Your task to perform on an android device: add a contact in the contacts app Image 0: 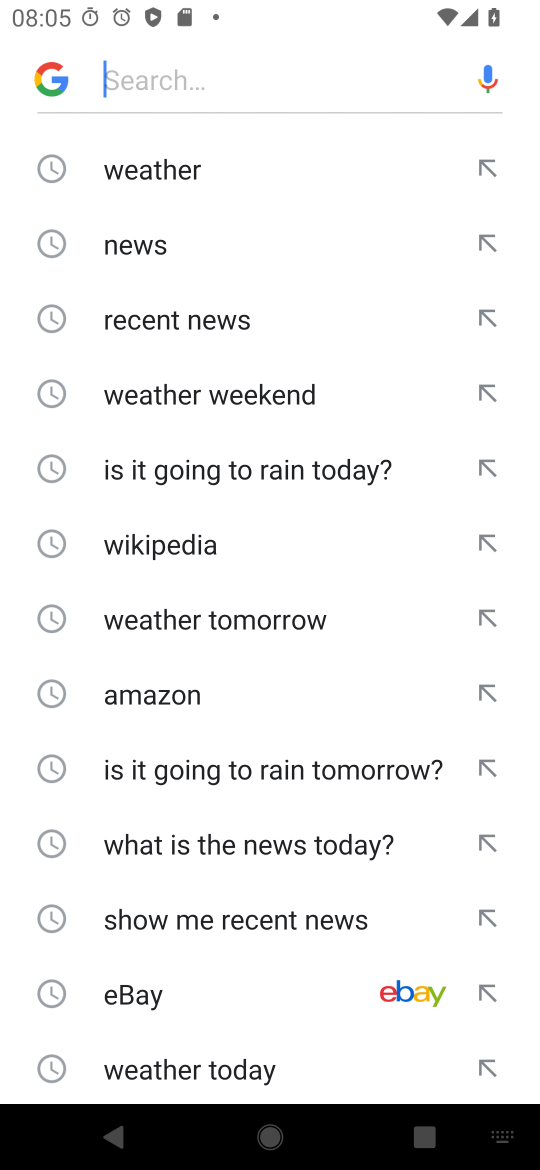
Step 0: press home button
Your task to perform on an android device: add a contact in the contacts app Image 1: 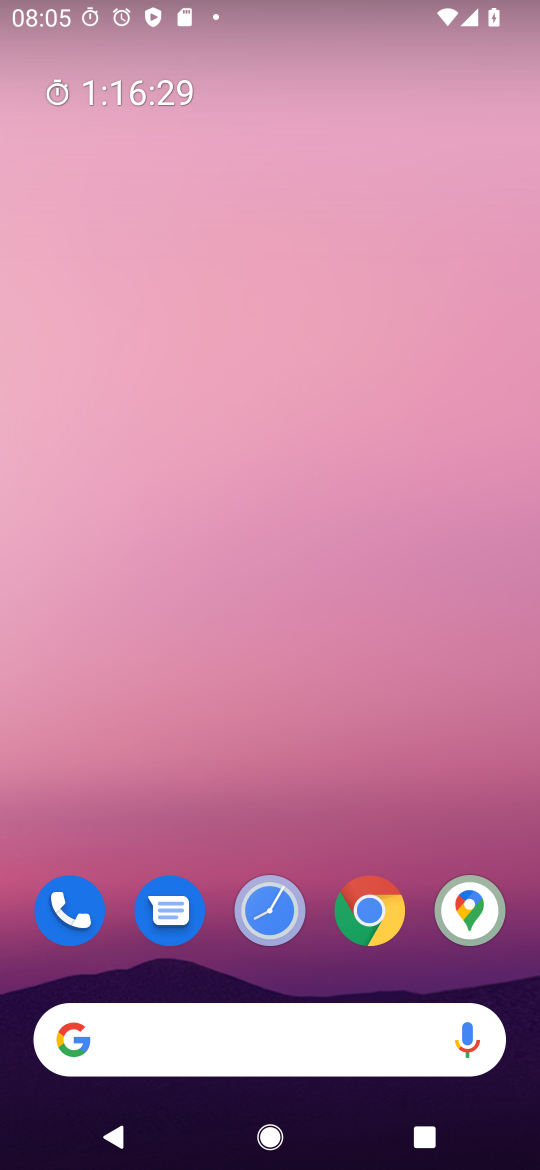
Step 1: drag from (246, 1039) to (230, 305)
Your task to perform on an android device: add a contact in the contacts app Image 2: 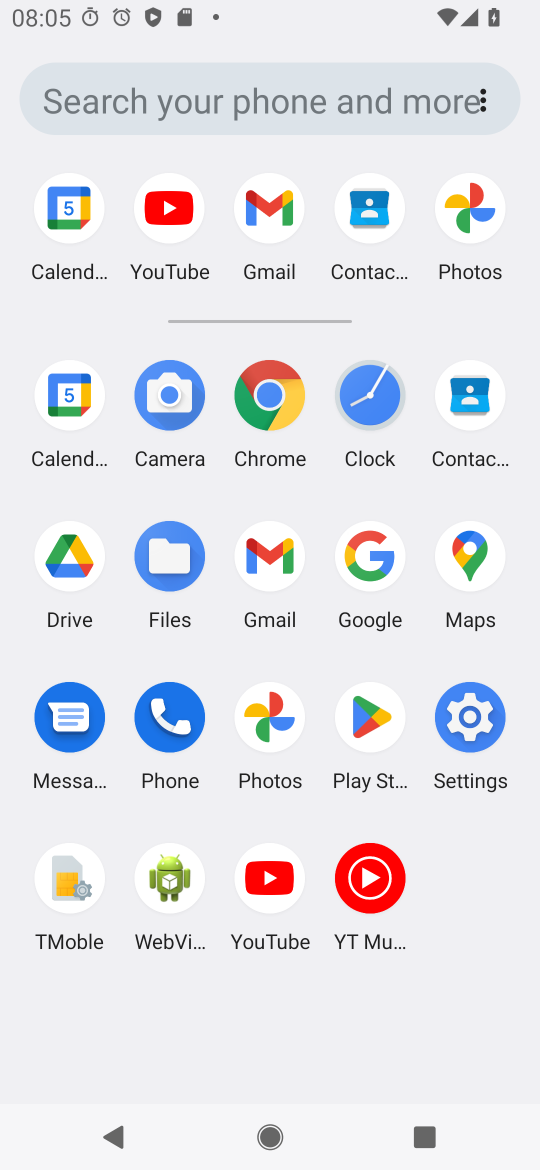
Step 2: click (448, 387)
Your task to perform on an android device: add a contact in the contacts app Image 3: 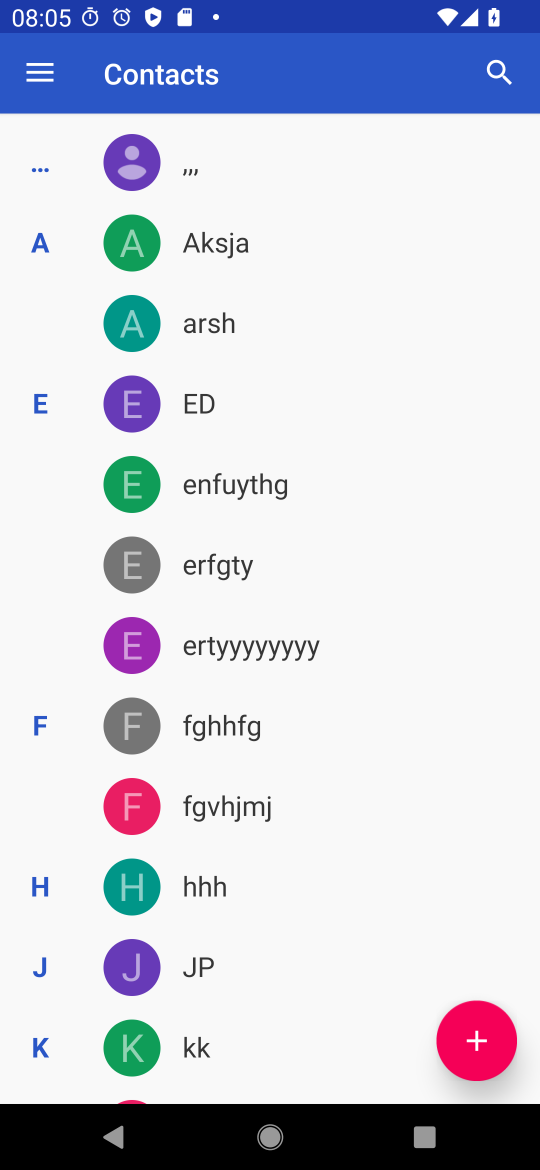
Step 3: click (467, 1029)
Your task to perform on an android device: add a contact in the contacts app Image 4: 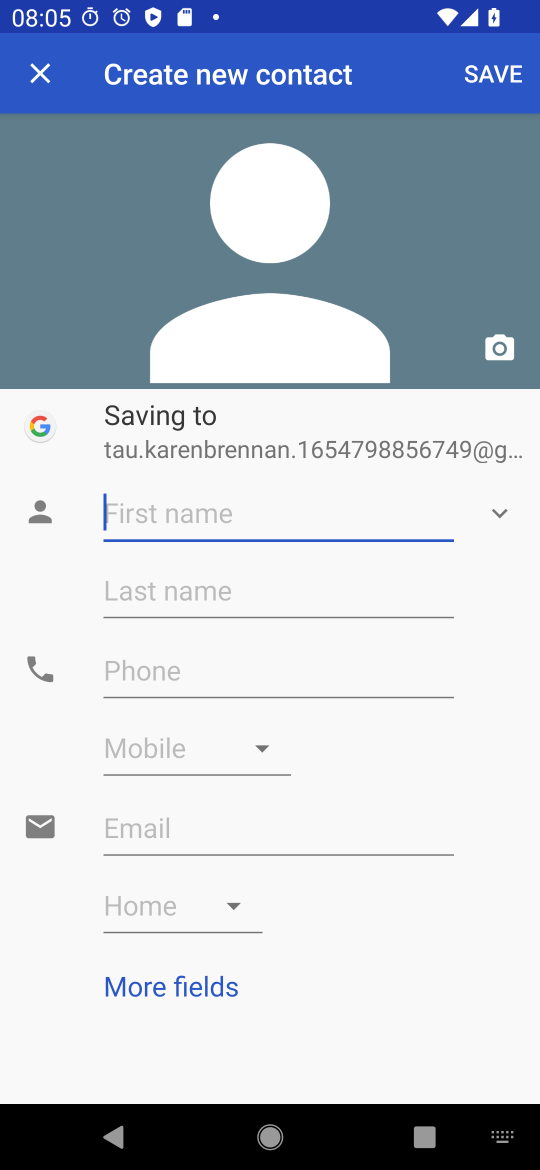
Step 4: type "jjhfhf"
Your task to perform on an android device: add a contact in the contacts app Image 5: 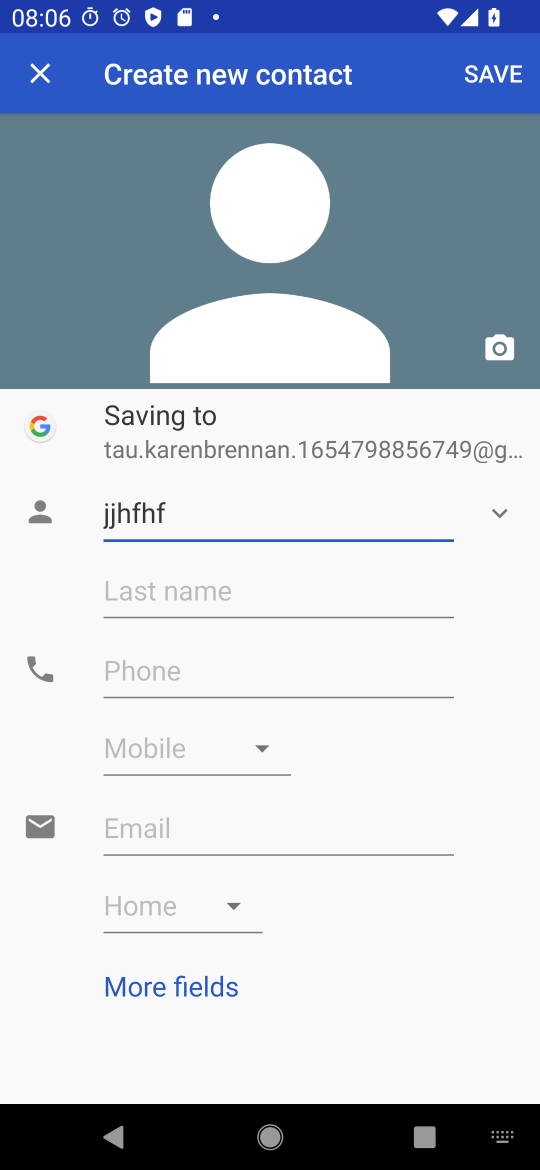
Step 5: click (250, 671)
Your task to perform on an android device: add a contact in the contacts app Image 6: 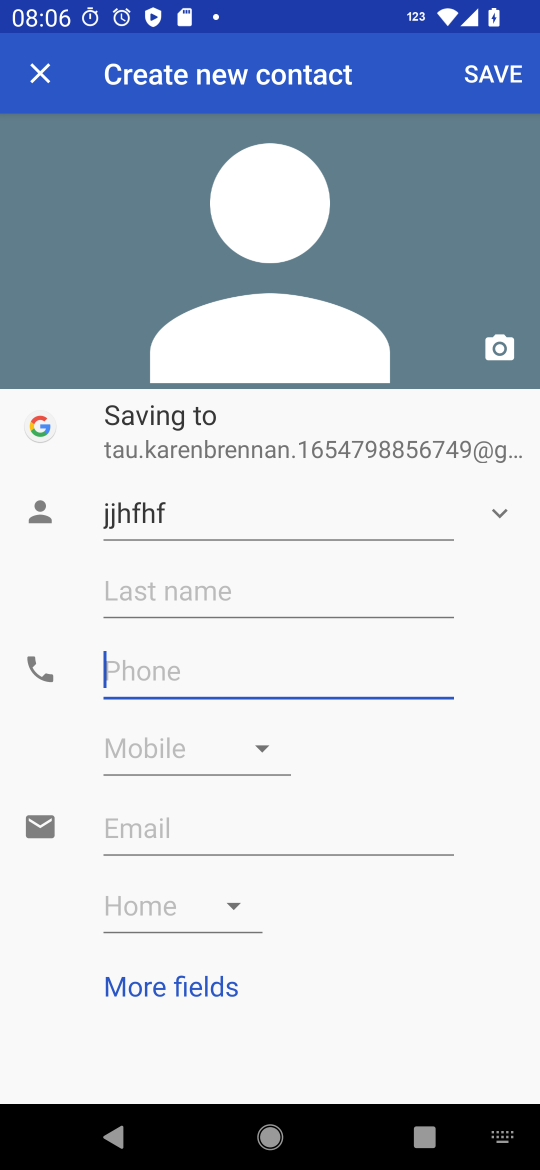
Step 6: type "9897898787"
Your task to perform on an android device: add a contact in the contacts app Image 7: 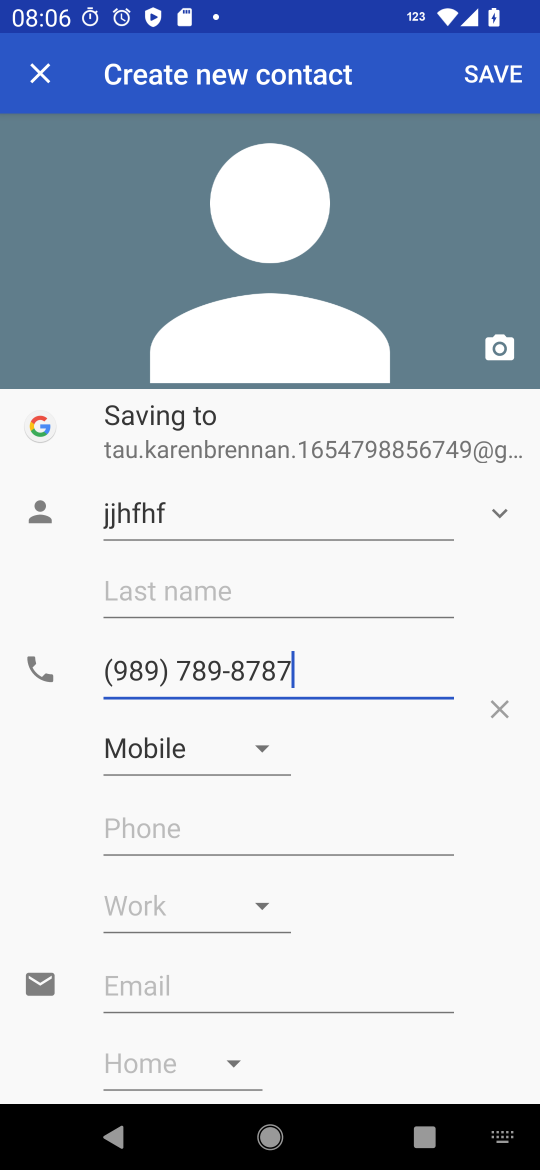
Step 7: click (490, 65)
Your task to perform on an android device: add a contact in the contacts app Image 8: 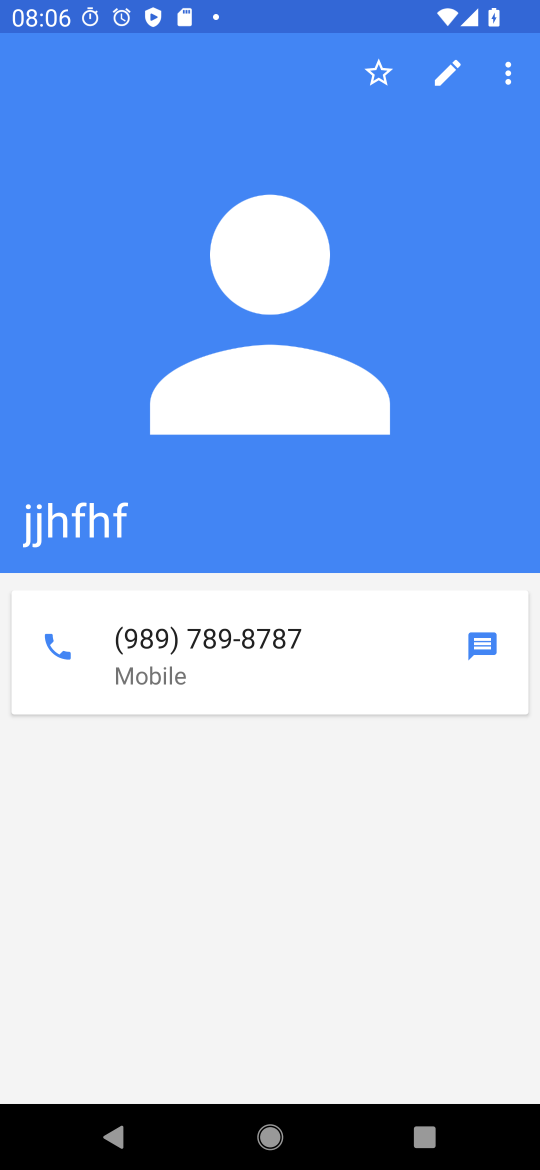
Step 8: task complete